Your task to perform on an android device: turn off notifications settings in the gmail app Image 0: 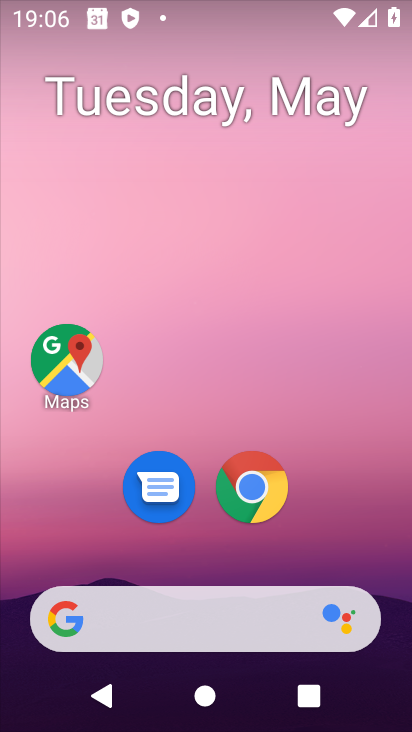
Step 0: drag from (341, 496) to (301, 70)
Your task to perform on an android device: turn off notifications settings in the gmail app Image 1: 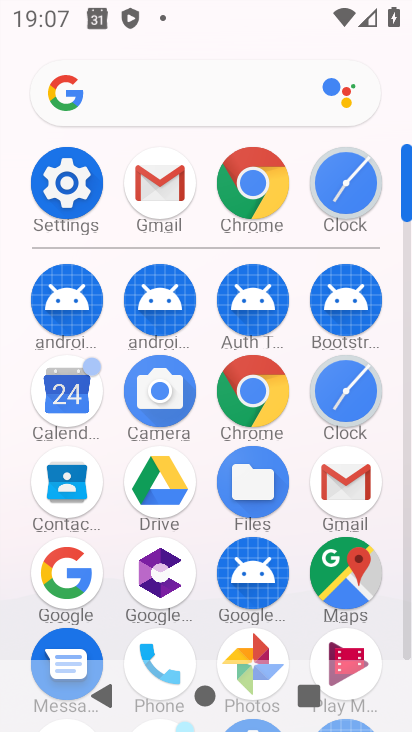
Step 1: click (155, 187)
Your task to perform on an android device: turn off notifications settings in the gmail app Image 2: 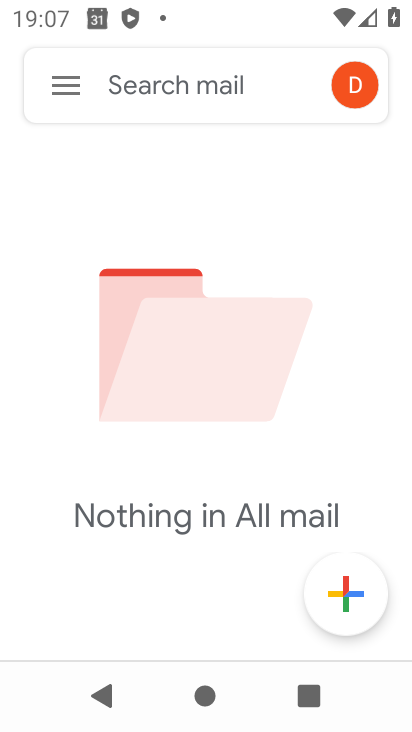
Step 2: click (69, 80)
Your task to perform on an android device: turn off notifications settings in the gmail app Image 3: 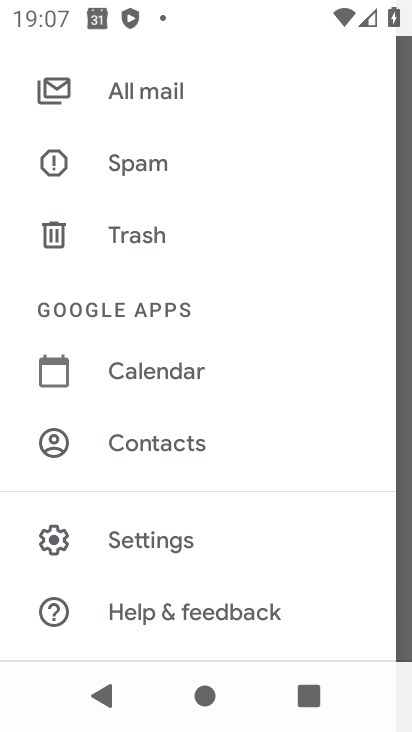
Step 3: click (153, 532)
Your task to perform on an android device: turn off notifications settings in the gmail app Image 4: 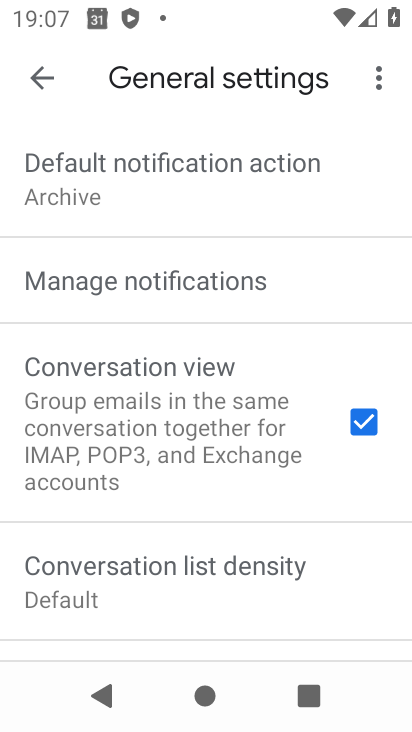
Step 4: click (140, 281)
Your task to perform on an android device: turn off notifications settings in the gmail app Image 5: 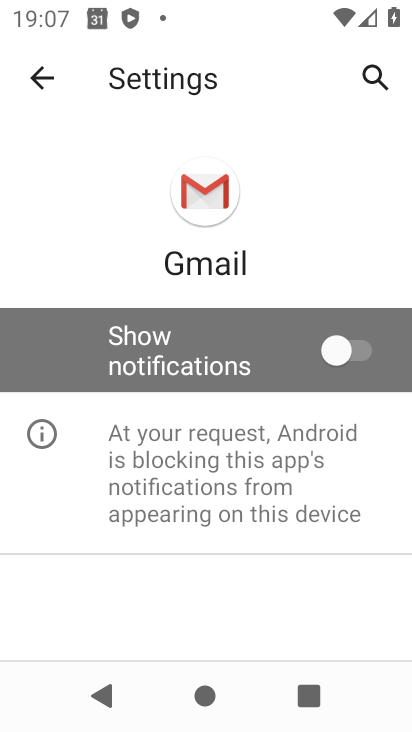
Step 5: task complete